Your task to perform on an android device: open a new tab in the chrome app Image 0: 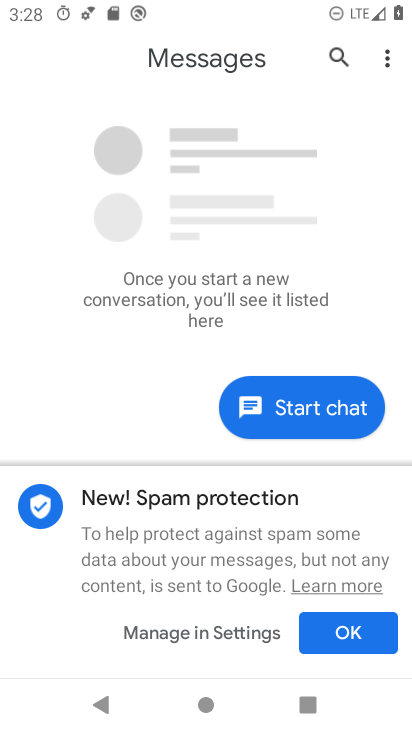
Step 0: press home button
Your task to perform on an android device: open a new tab in the chrome app Image 1: 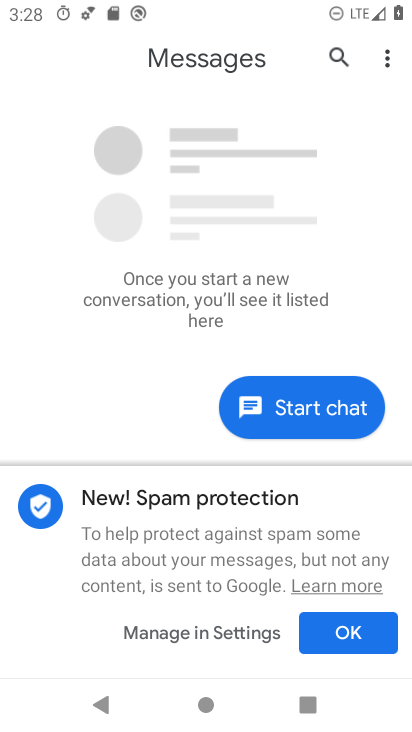
Step 1: press home button
Your task to perform on an android device: open a new tab in the chrome app Image 2: 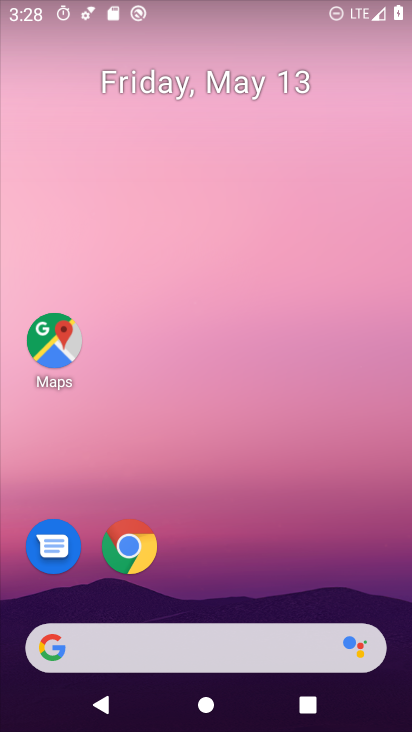
Step 2: drag from (231, 628) to (255, 196)
Your task to perform on an android device: open a new tab in the chrome app Image 3: 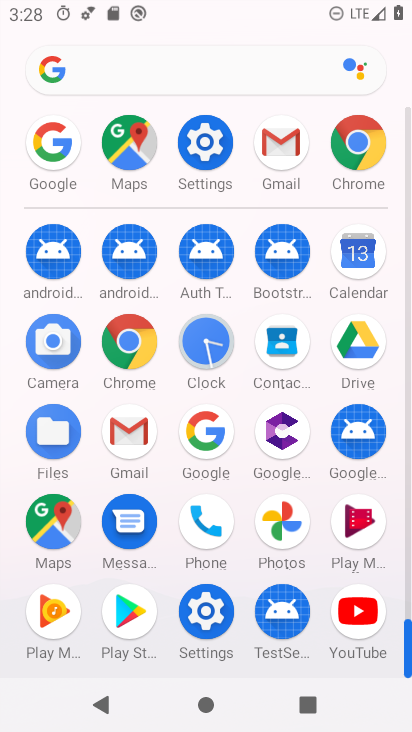
Step 3: click (364, 172)
Your task to perform on an android device: open a new tab in the chrome app Image 4: 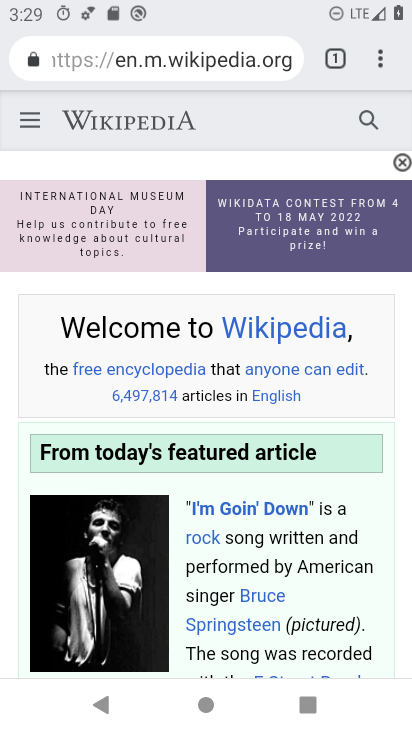
Step 4: drag from (219, 584) to (243, 382)
Your task to perform on an android device: open a new tab in the chrome app Image 5: 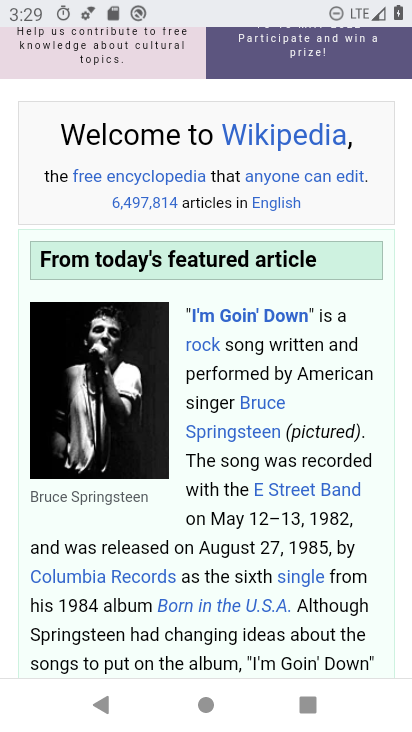
Step 5: drag from (293, 319) to (287, 517)
Your task to perform on an android device: open a new tab in the chrome app Image 6: 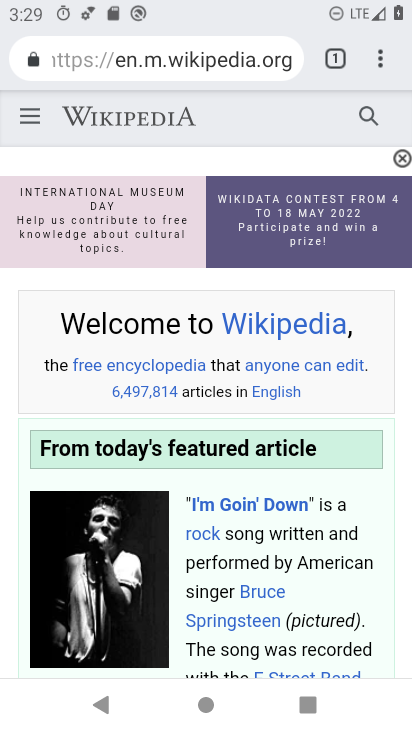
Step 6: drag from (332, 57) to (324, 295)
Your task to perform on an android device: open a new tab in the chrome app Image 7: 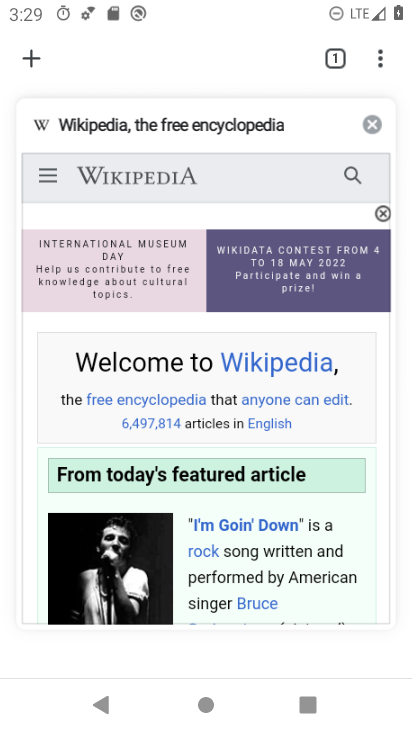
Step 7: click (36, 61)
Your task to perform on an android device: open a new tab in the chrome app Image 8: 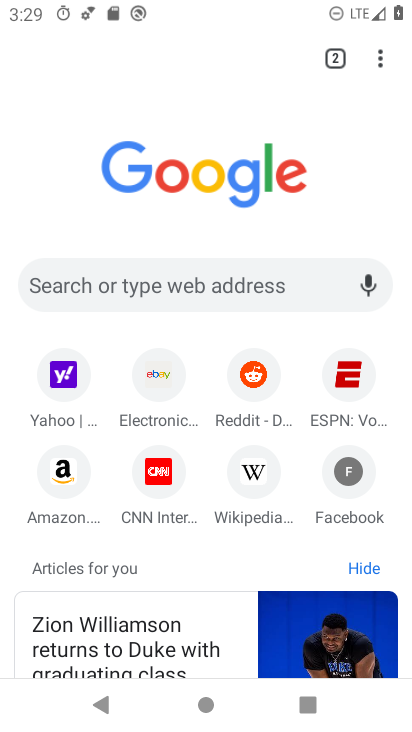
Step 8: task complete